Your task to perform on an android device: check out phone information Image 0: 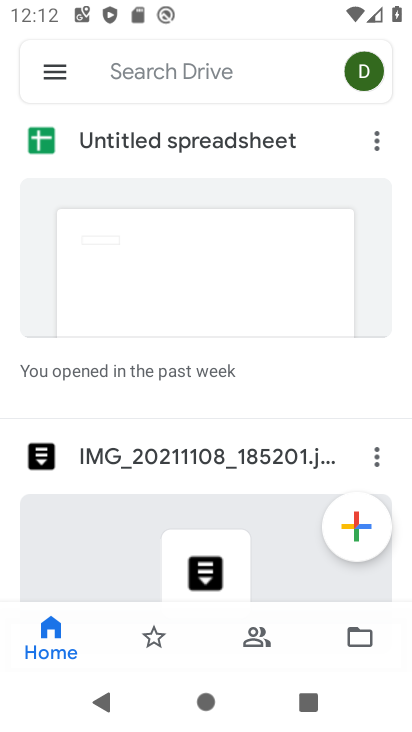
Step 0: press home button
Your task to perform on an android device: check out phone information Image 1: 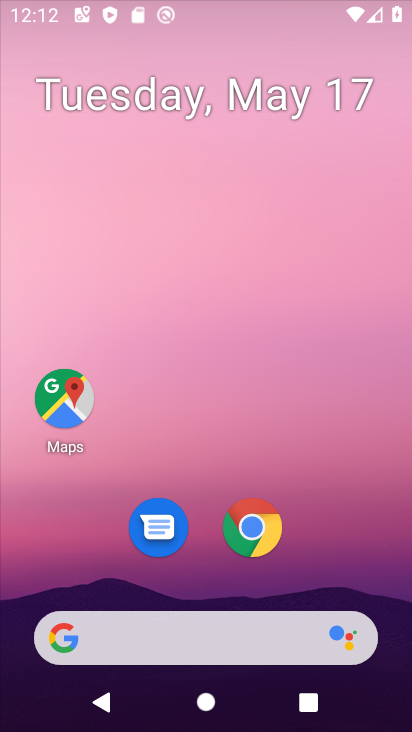
Step 1: drag from (328, 544) to (313, 233)
Your task to perform on an android device: check out phone information Image 2: 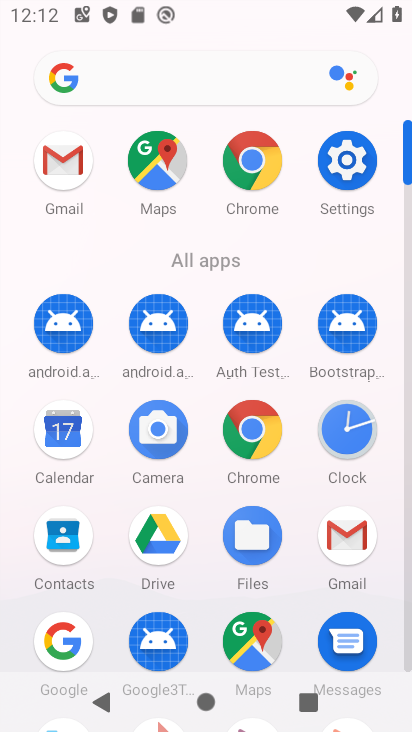
Step 2: drag from (177, 569) to (233, 308)
Your task to perform on an android device: check out phone information Image 3: 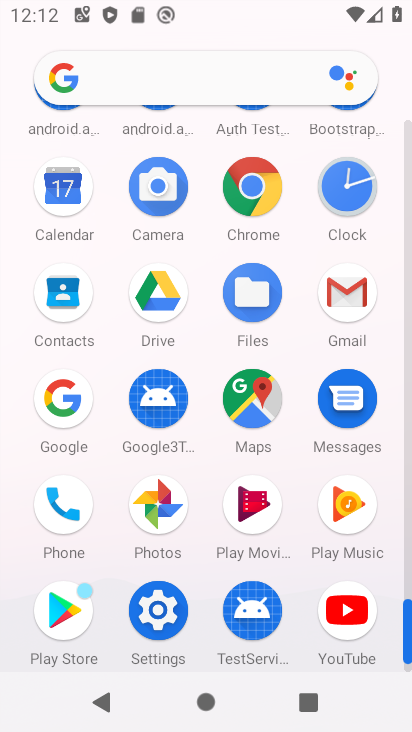
Step 3: click (49, 511)
Your task to perform on an android device: check out phone information Image 4: 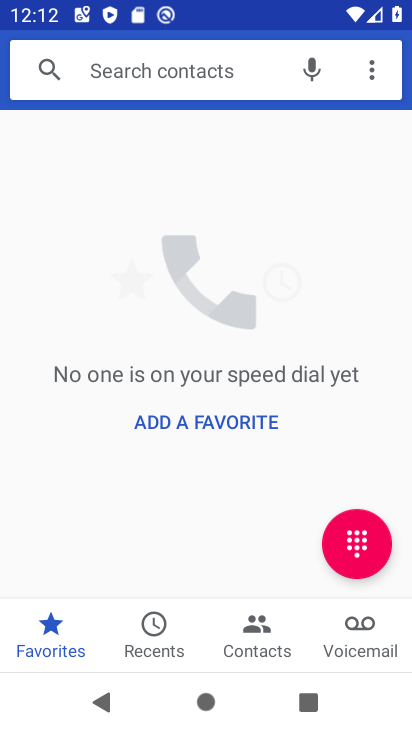
Step 4: task complete